Your task to perform on an android device: toggle translation in the chrome app Image 0: 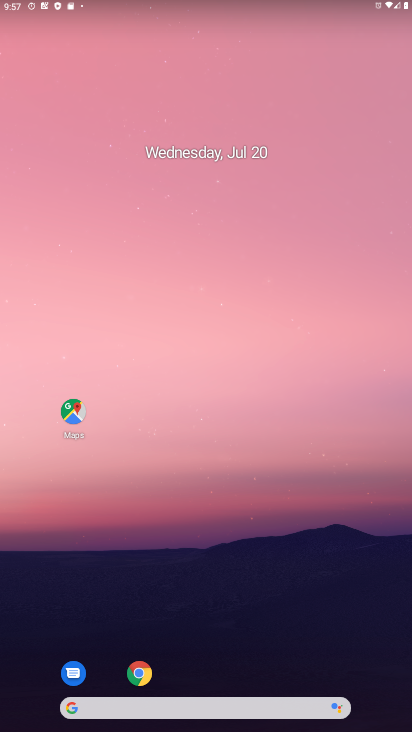
Step 0: click (134, 677)
Your task to perform on an android device: toggle translation in the chrome app Image 1: 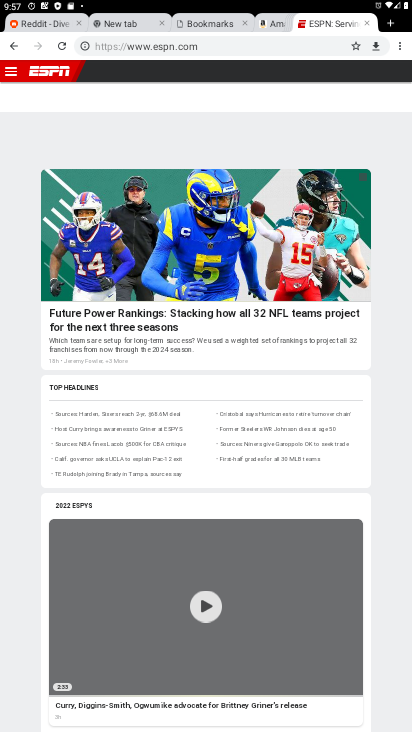
Step 1: click (399, 47)
Your task to perform on an android device: toggle translation in the chrome app Image 2: 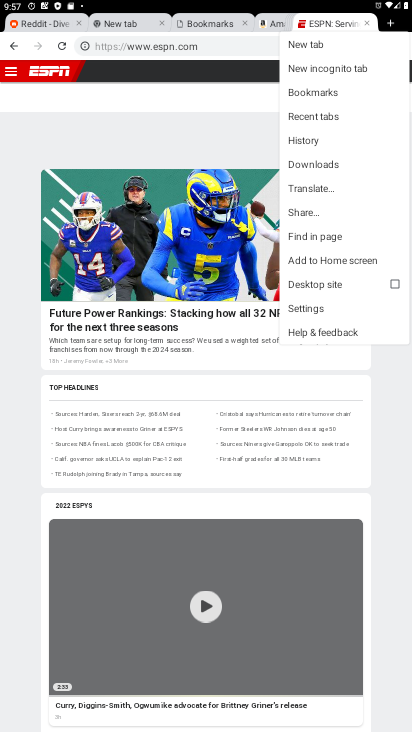
Step 2: click (300, 306)
Your task to perform on an android device: toggle translation in the chrome app Image 3: 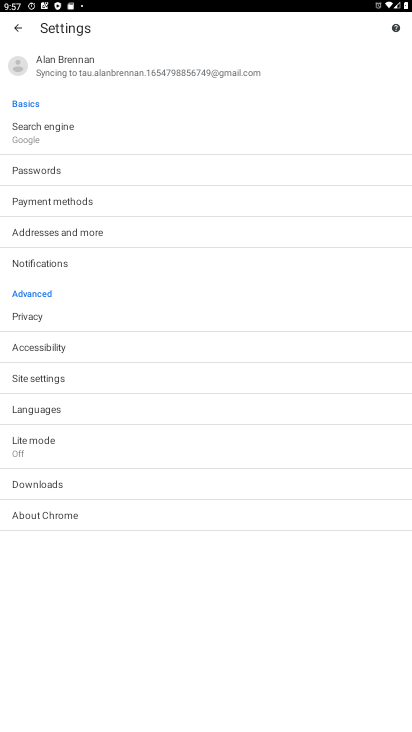
Step 3: click (37, 408)
Your task to perform on an android device: toggle translation in the chrome app Image 4: 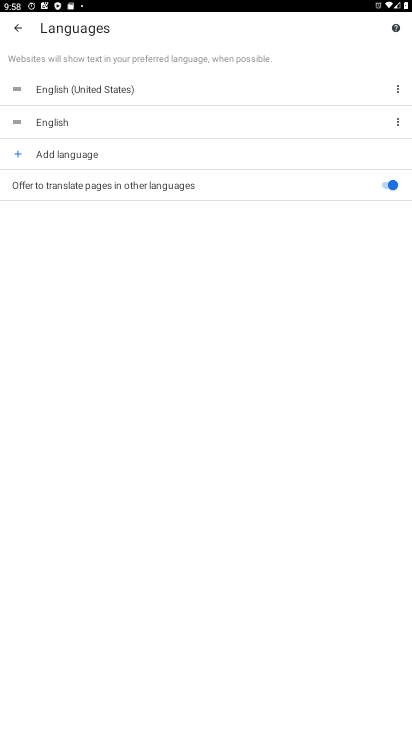
Step 4: click (384, 182)
Your task to perform on an android device: toggle translation in the chrome app Image 5: 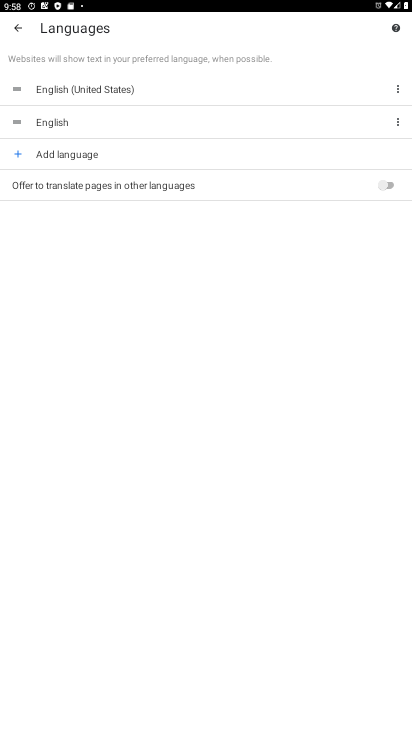
Step 5: task complete